Your task to perform on an android device: Open the calendar and show me this week's events? Image 0: 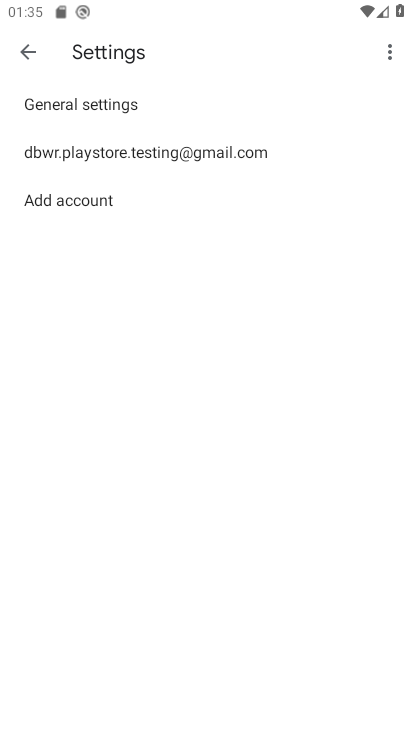
Step 0: press home button
Your task to perform on an android device: Open the calendar and show me this week's events? Image 1: 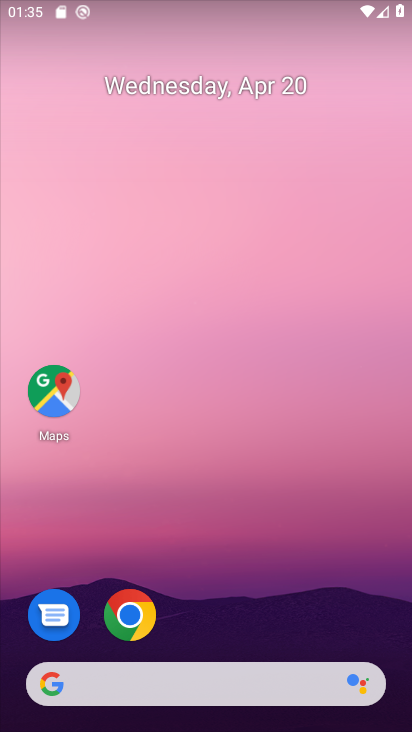
Step 1: drag from (369, 608) to (366, 263)
Your task to perform on an android device: Open the calendar and show me this week's events? Image 2: 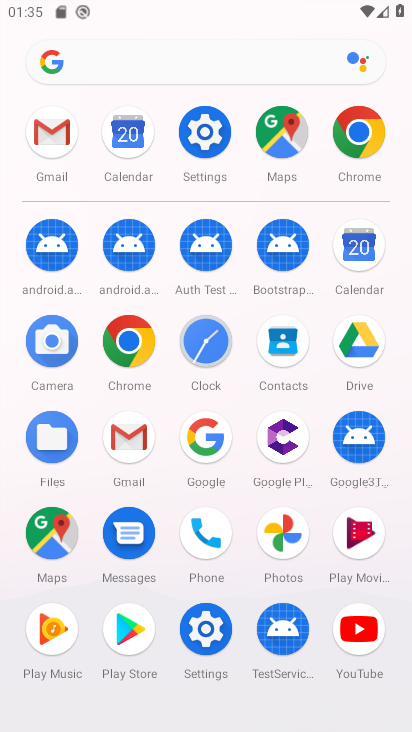
Step 2: click (357, 240)
Your task to perform on an android device: Open the calendar and show me this week's events? Image 3: 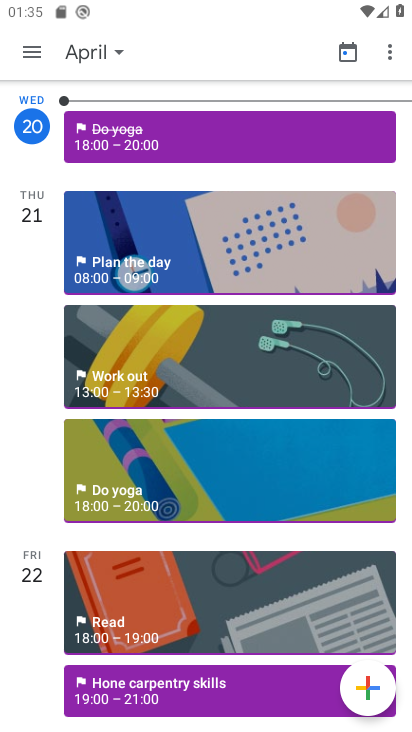
Step 3: click (118, 54)
Your task to perform on an android device: Open the calendar and show me this week's events? Image 4: 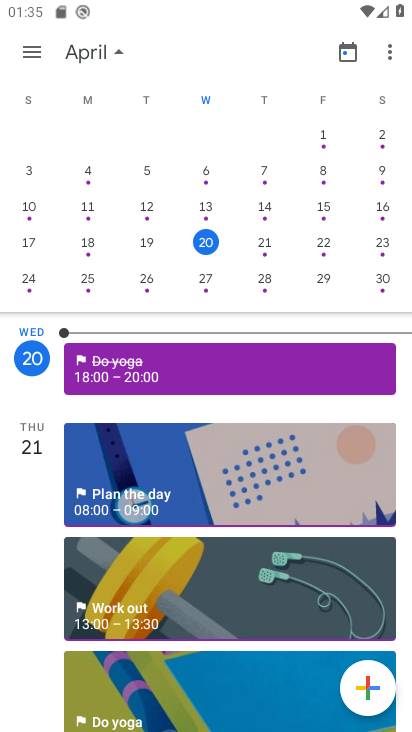
Step 4: click (268, 240)
Your task to perform on an android device: Open the calendar and show me this week's events? Image 5: 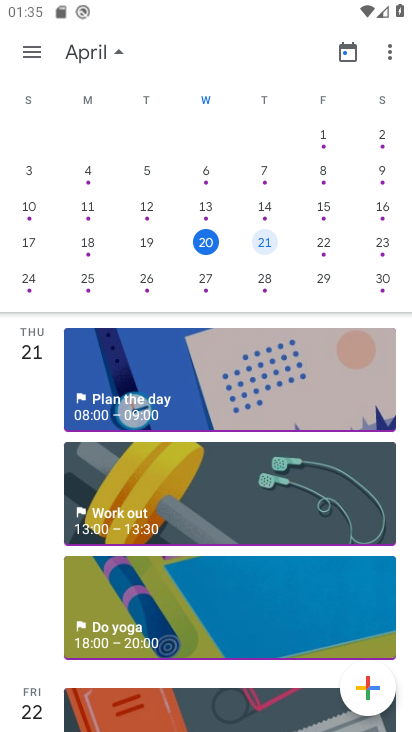
Step 5: task complete